Your task to perform on an android device: star an email in the gmail app Image 0: 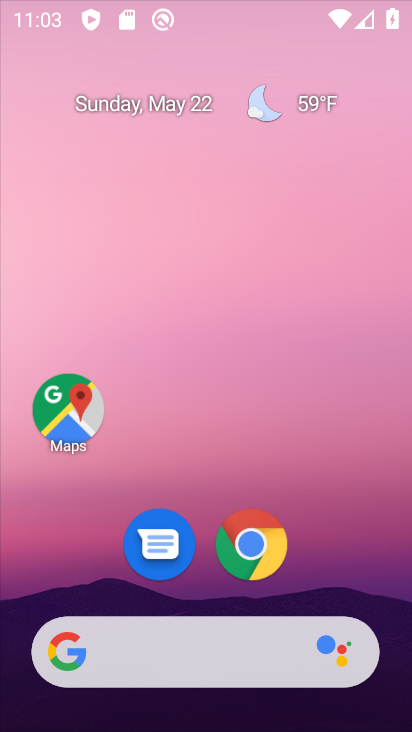
Step 0: drag from (341, 447) to (272, 17)
Your task to perform on an android device: star an email in the gmail app Image 1: 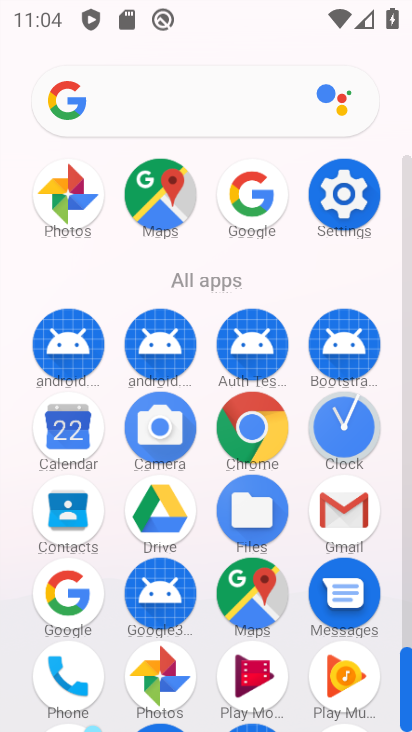
Step 1: click (352, 183)
Your task to perform on an android device: star an email in the gmail app Image 2: 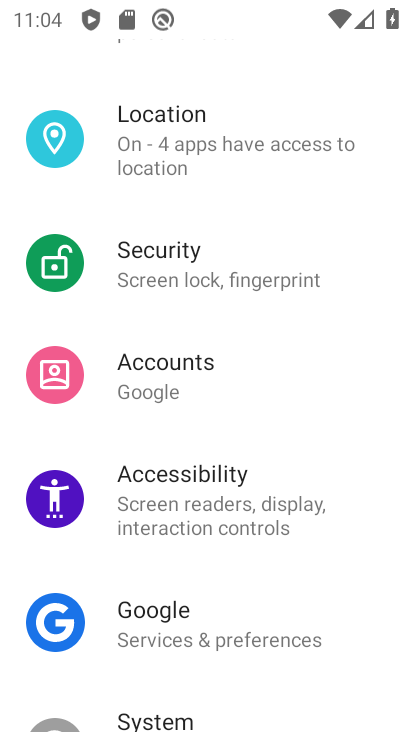
Step 2: press home button
Your task to perform on an android device: star an email in the gmail app Image 3: 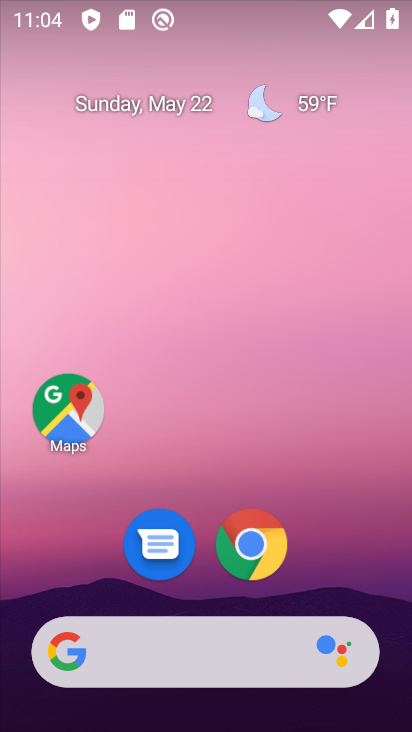
Step 3: drag from (293, 373) to (265, 173)
Your task to perform on an android device: star an email in the gmail app Image 4: 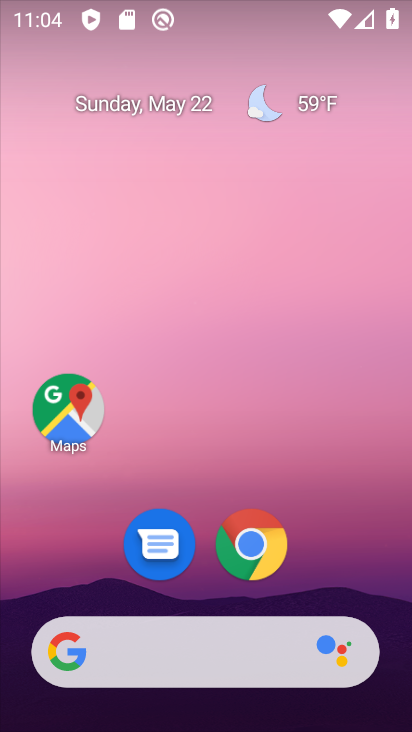
Step 4: drag from (346, 489) to (294, 122)
Your task to perform on an android device: star an email in the gmail app Image 5: 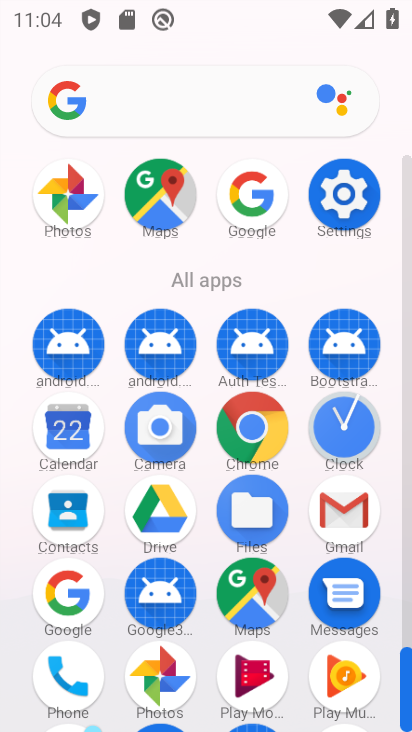
Step 5: click (360, 519)
Your task to perform on an android device: star an email in the gmail app Image 6: 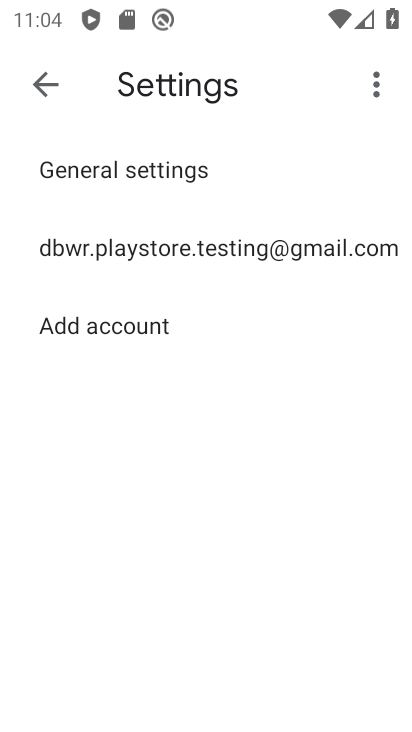
Step 6: click (67, 93)
Your task to perform on an android device: star an email in the gmail app Image 7: 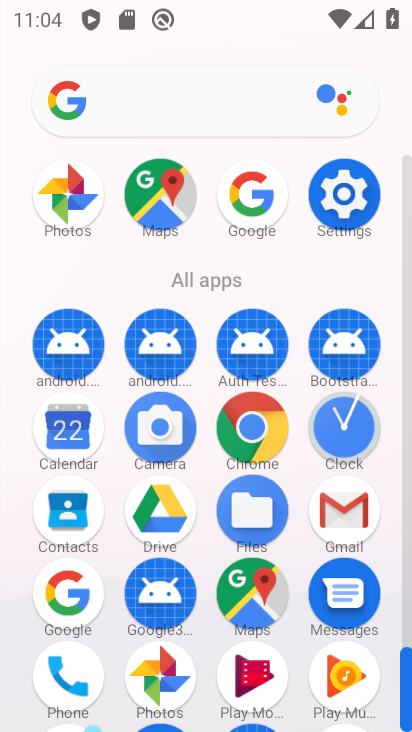
Step 7: click (345, 500)
Your task to perform on an android device: star an email in the gmail app Image 8: 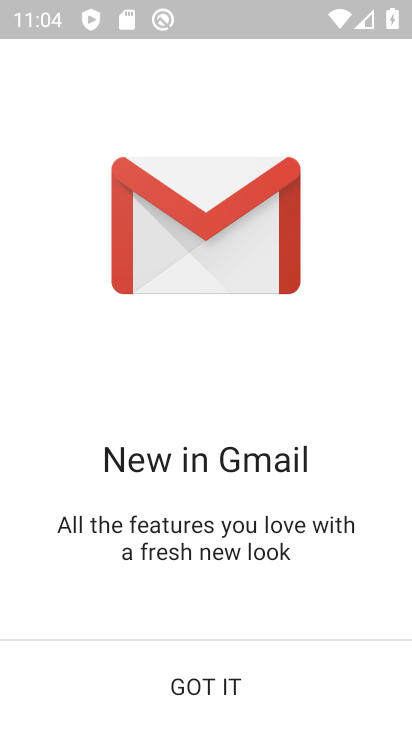
Step 8: click (230, 688)
Your task to perform on an android device: star an email in the gmail app Image 9: 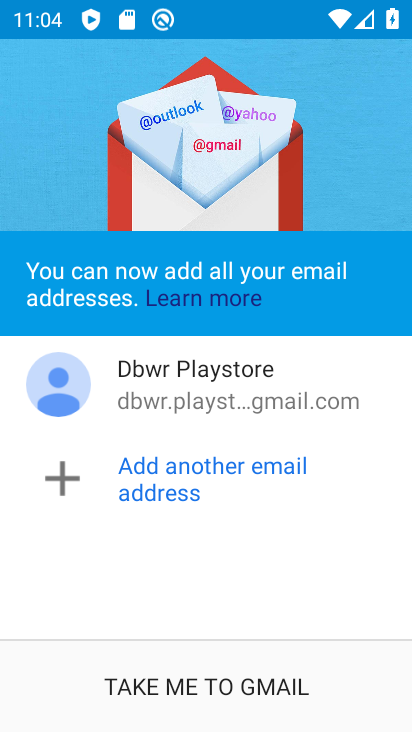
Step 9: click (230, 688)
Your task to perform on an android device: star an email in the gmail app Image 10: 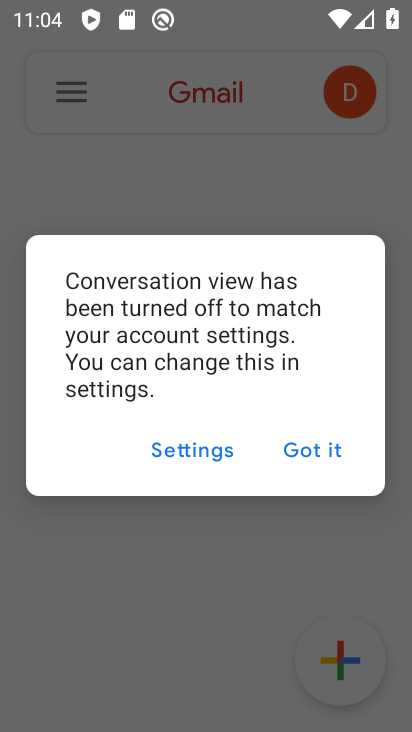
Step 10: click (306, 445)
Your task to perform on an android device: star an email in the gmail app Image 11: 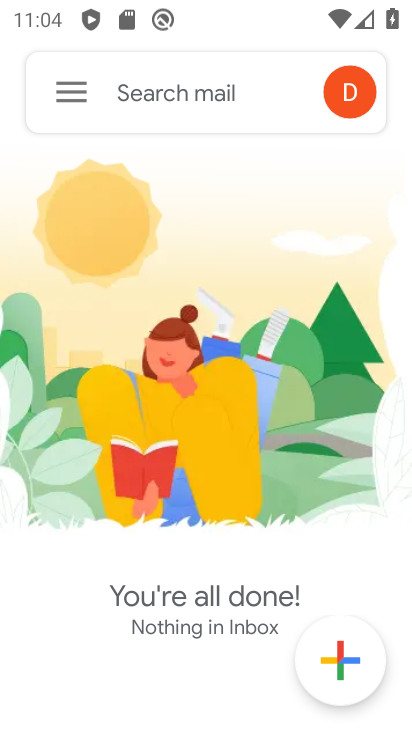
Step 11: task complete